Your task to perform on an android device: open sync settings in chrome Image 0: 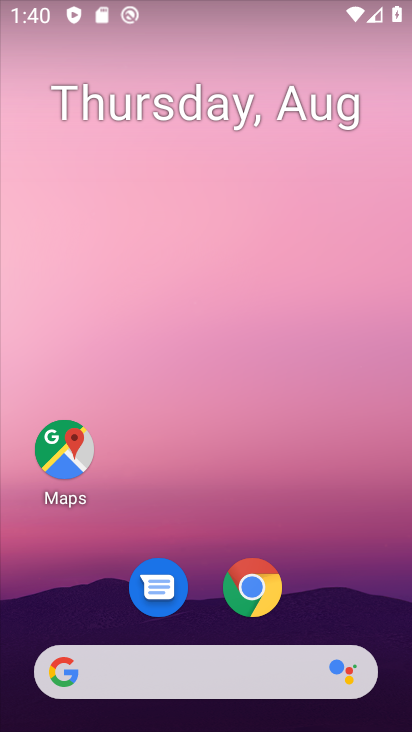
Step 0: click (252, 588)
Your task to perform on an android device: open sync settings in chrome Image 1: 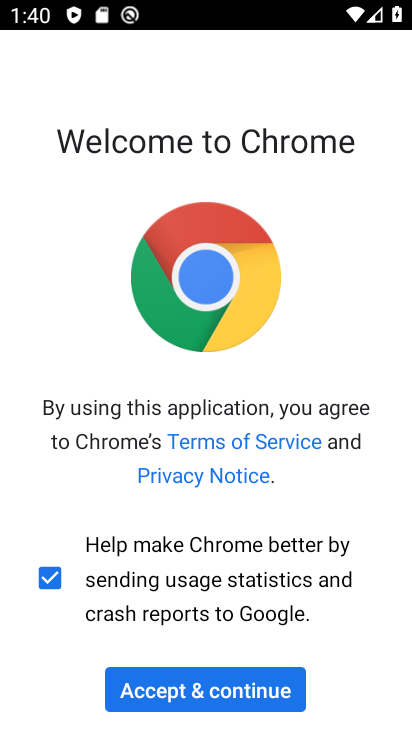
Step 1: click (219, 688)
Your task to perform on an android device: open sync settings in chrome Image 2: 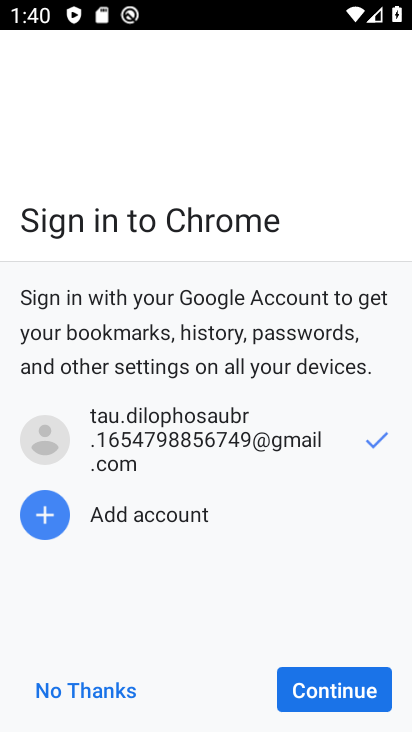
Step 2: click (325, 697)
Your task to perform on an android device: open sync settings in chrome Image 3: 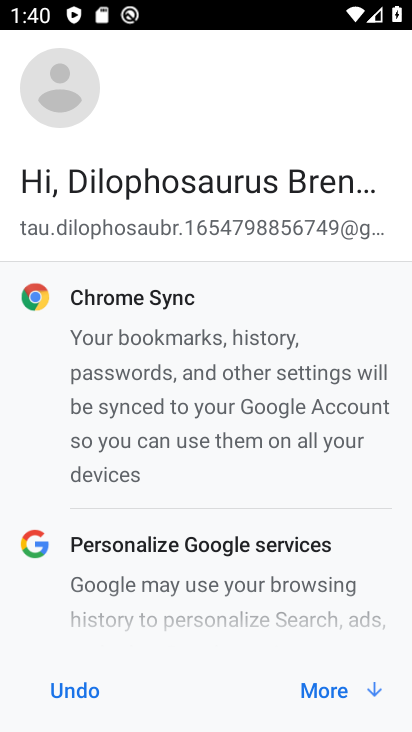
Step 3: click (369, 686)
Your task to perform on an android device: open sync settings in chrome Image 4: 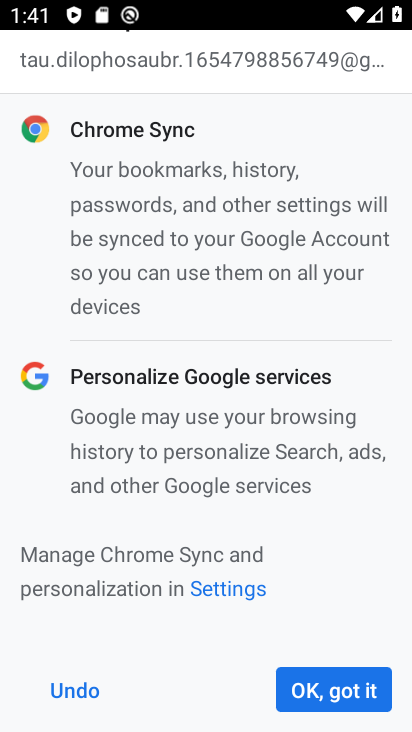
Step 4: click (328, 692)
Your task to perform on an android device: open sync settings in chrome Image 5: 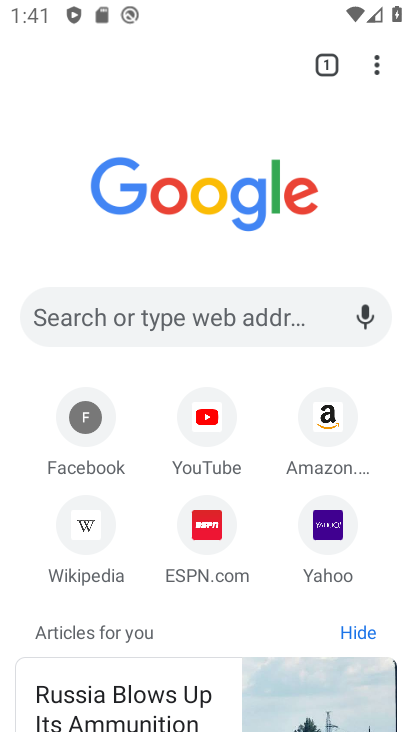
Step 5: click (378, 65)
Your task to perform on an android device: open sync settings in chrome Image 6: 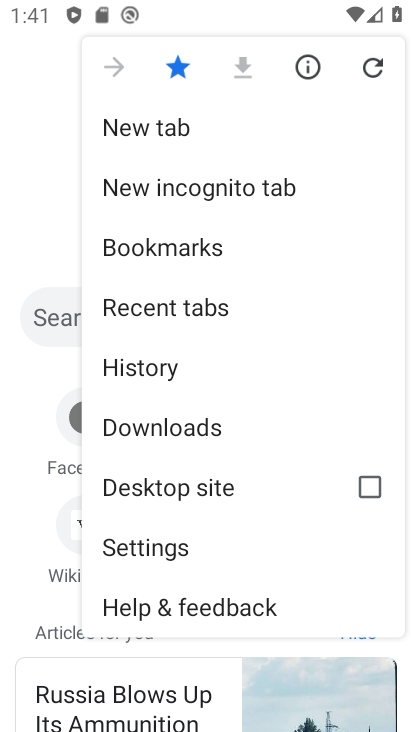
Step 6: click (171, 544)
Your task to perform on an android device: open sync settings in chrome Image 7: 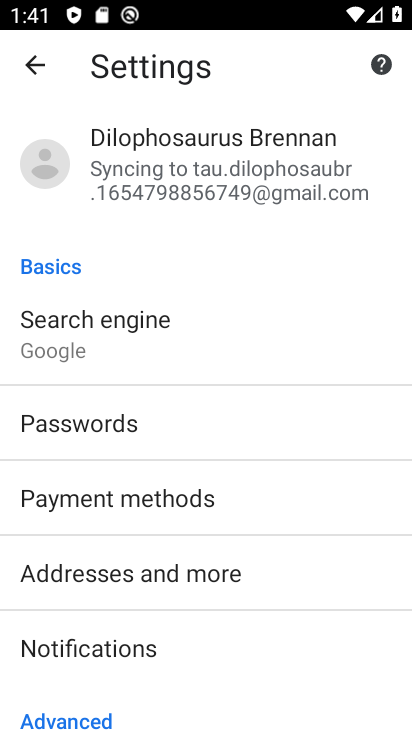
Step 7: click (159, 144)
Your task to perform on an android device: open sync settings in chrome Image 8: 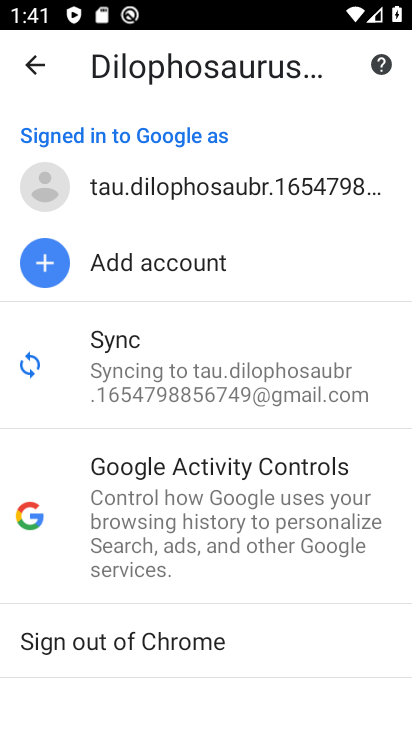
Step 8: click (104, 331)
Your task to perform on an android device: open sync settings in chrome Image 9: 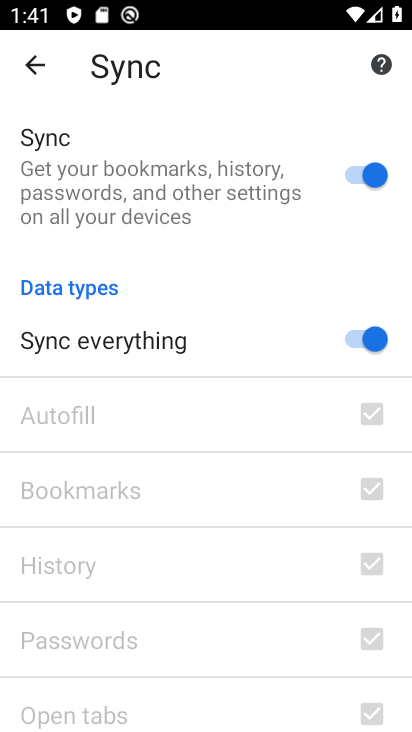
Step 9: task complete